Your task to perform on an android device: Open eBay Image 0: 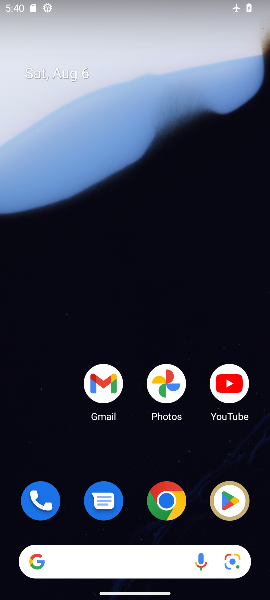
Step 0: click (168, 496)
Your task to perform on an android device: Open eBay Image 1: 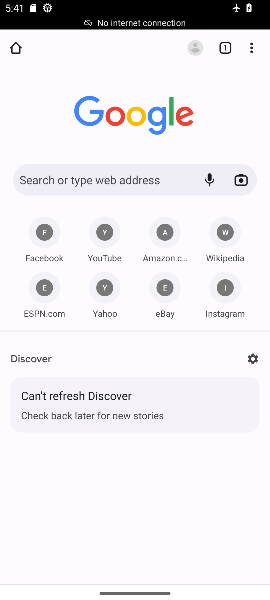
Step 1: click (168, 299)
Your task to perform on an android device: Open eBay Image 2: 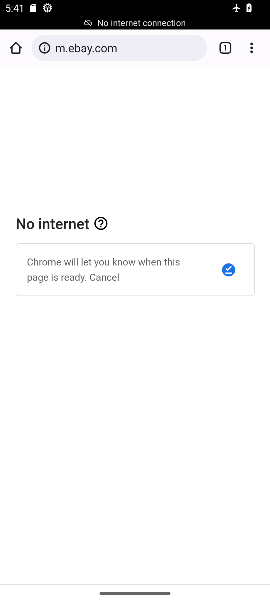
Step 2: task complete